Your task to perform on an android device: Go to Yahoo.com Image 0: 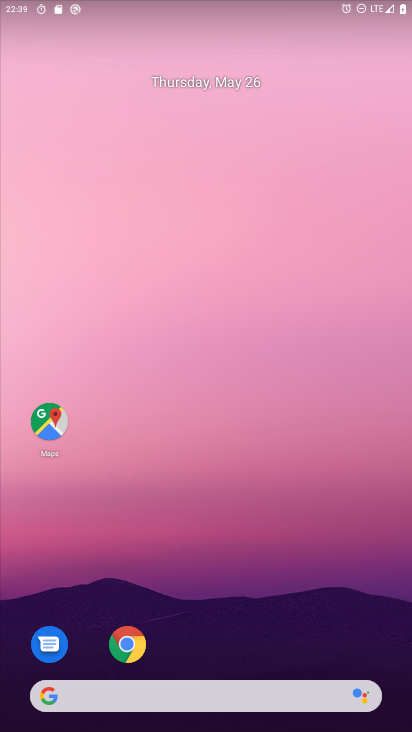
Step 0: drag from (179, 589) to (217, 394)
Your task to perform on an android device: Go to Yahoo.com Image 1: 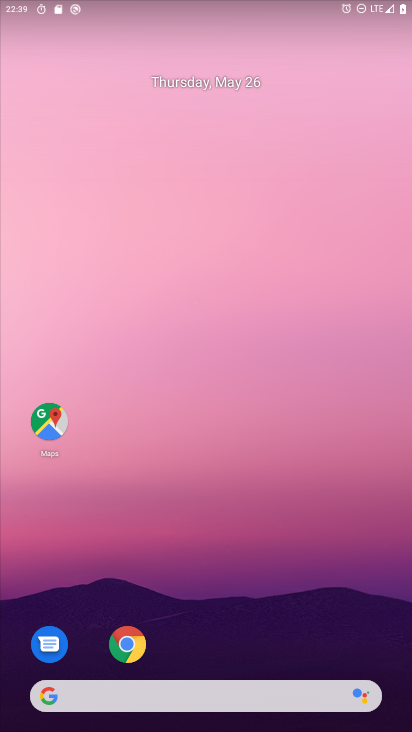
Step 1: drag from (184, 597) to (333, 0)
Your task to perform on an android device: Go to Yahoo.com Image 2: 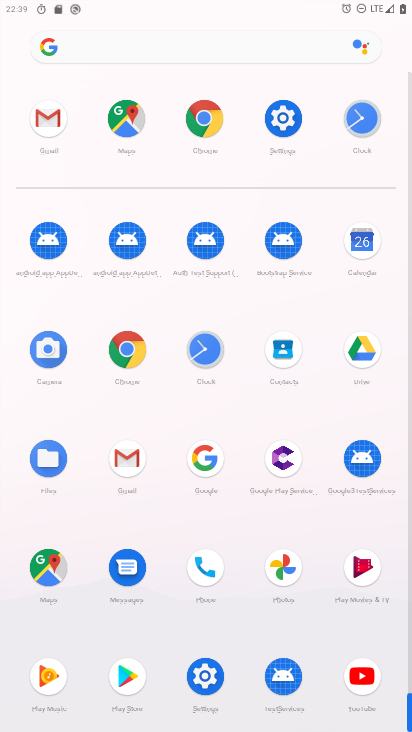
Step 2: click (162, 40)
Your task to perform on an android device: Go to Yahoo.com Image 3: 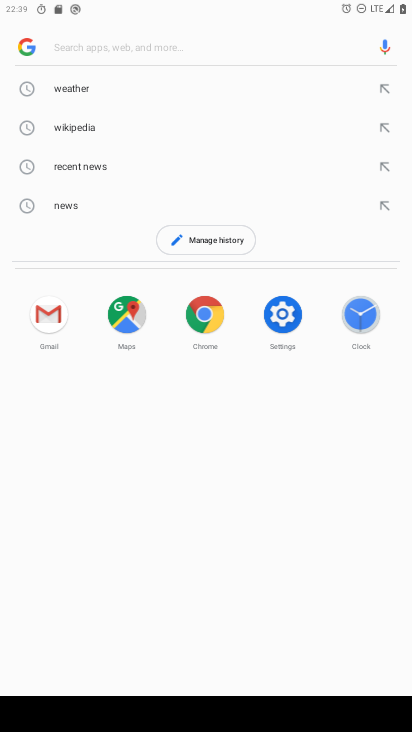
Step 3: type "Yahoo.com"
Your task to perform on an android device: Go to Yahoo.com Image 4: 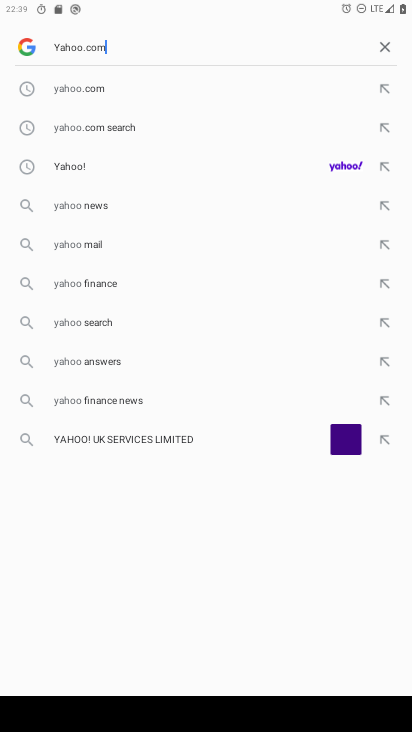
Step 4: type ""
Your task to perform on an android device: Go to Yahoo.com Image 5: 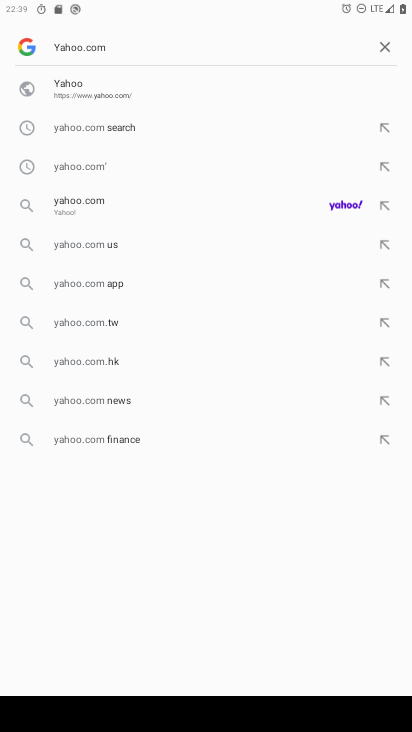
Step 5: click (90, 194)
Your task to perform on an android device: Go to Yahoo.com Image 6: 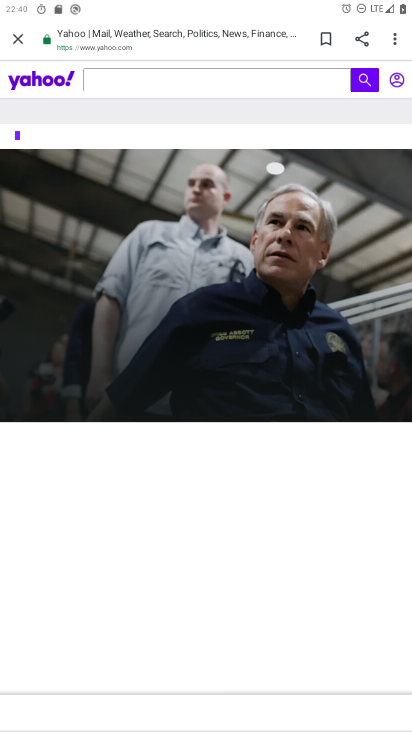
Step 6: task complete